Your task to perform on an android device: Go to internet settings Image 0: 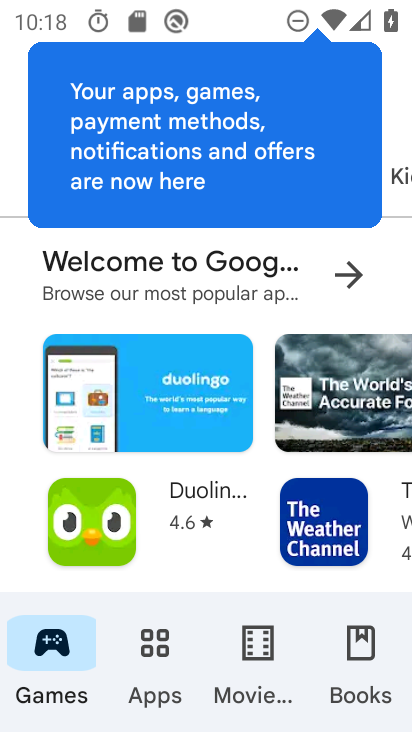
Step 0: press home button
Your task to perform on an android device: Go to internet settings Image 1: 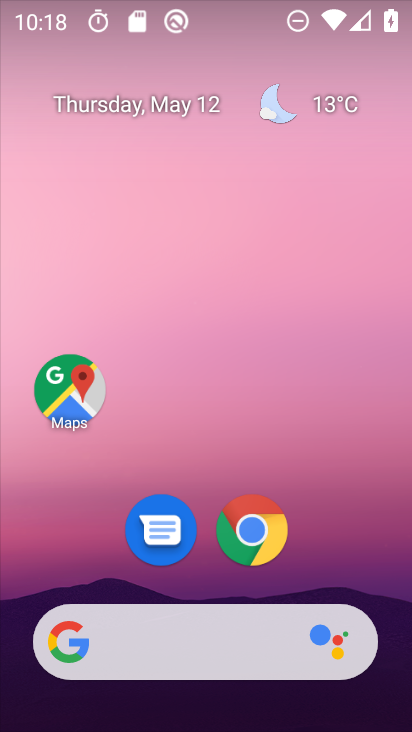
Step 1: drag from (306, 516) to (356, 187)
Your task to perform on an android device: Go to internet settings Image 2: 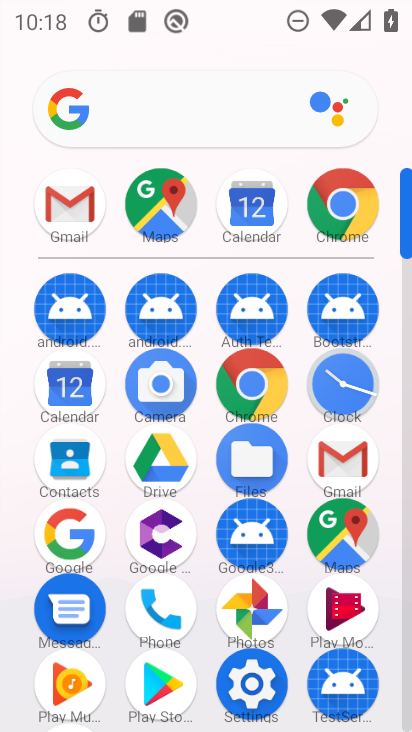
Step 2: click (244, 686)
Your task to perform on an android device: Go to internet settings Image 3: 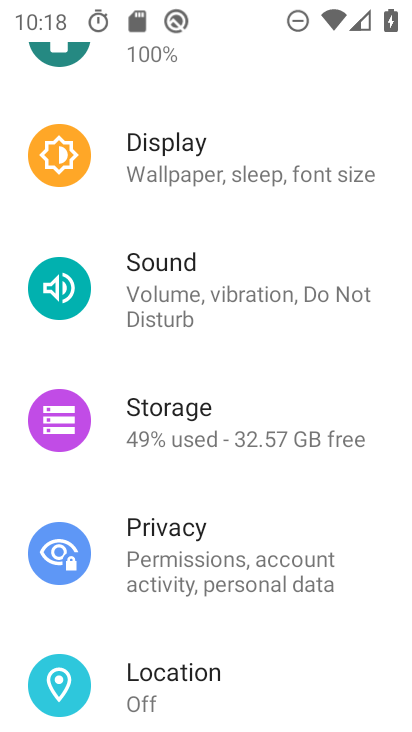
Step 3: drag from (325, 226) to (254, 600)
Your task to perform on an android device: Go to internet settings Image 4: 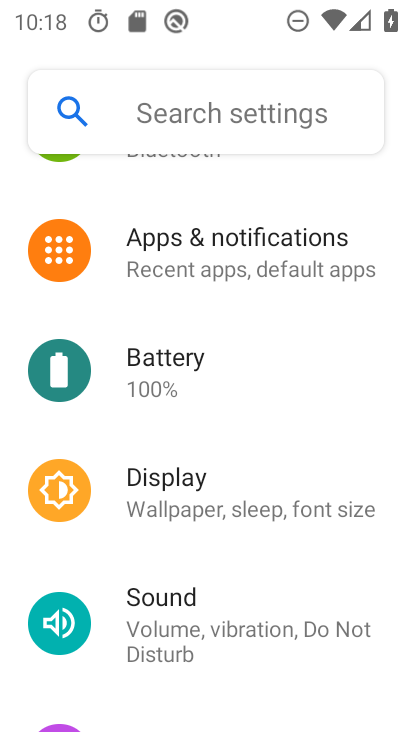
Step 4: drag from (282, 396) to (237, 659)
Your task to perform on an android device: Go to internet settings Image 5: 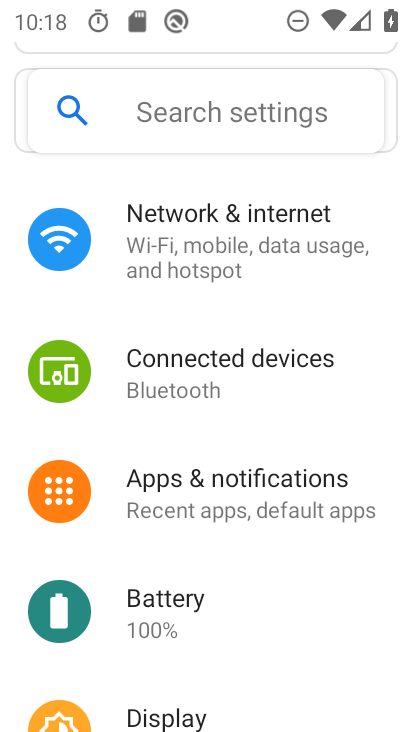
Step 5: click (259, 247)
Your task to perform on an android device: Go to internet settings Image 6: 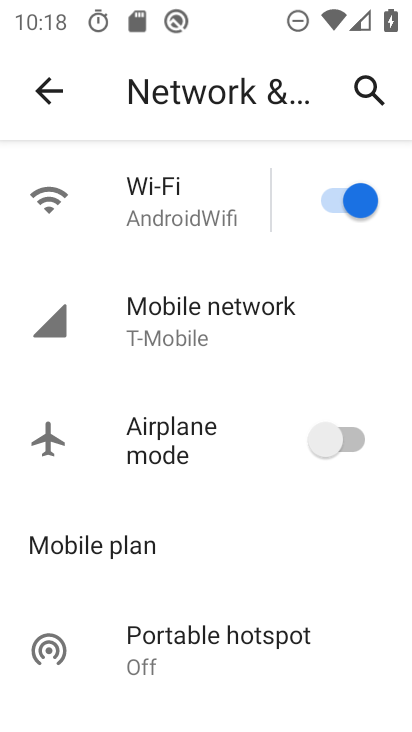
Step 6: task complete